Your task to perform on an android device: toggle notification dots Image 0: 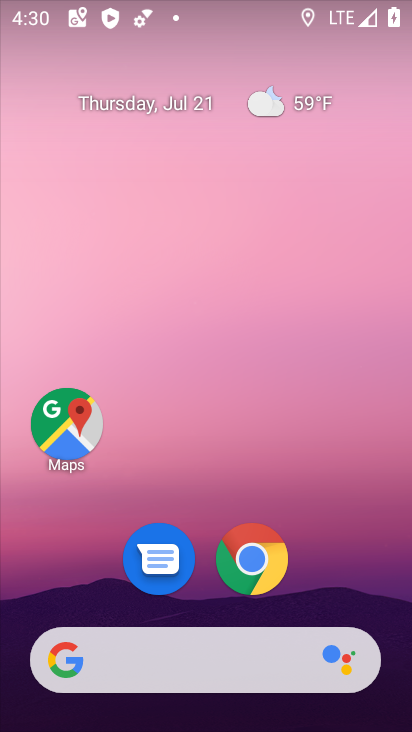
Step 0: drag from (106, 612) to (200, 7)
Your task to perform on an android device: toggle notification dots Image 1: 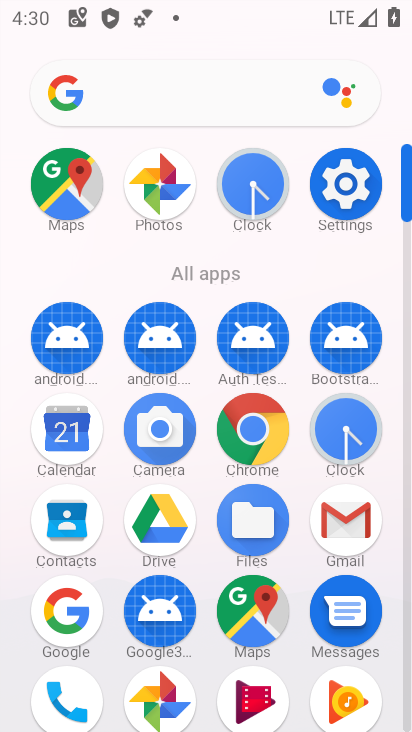
Step 1: click (343, 178)
Your task to perform on an android device: toggle notification dots Image 2: 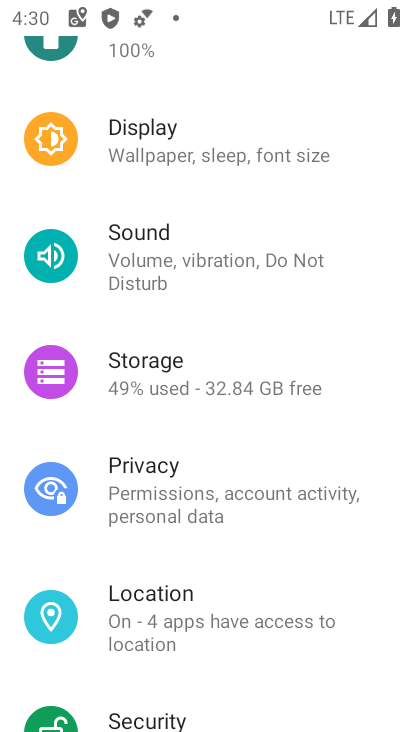
Step 2: drag from (255, 215) to (171, 708)
Your task to perform on an android device: toggle notification dots Image 3: 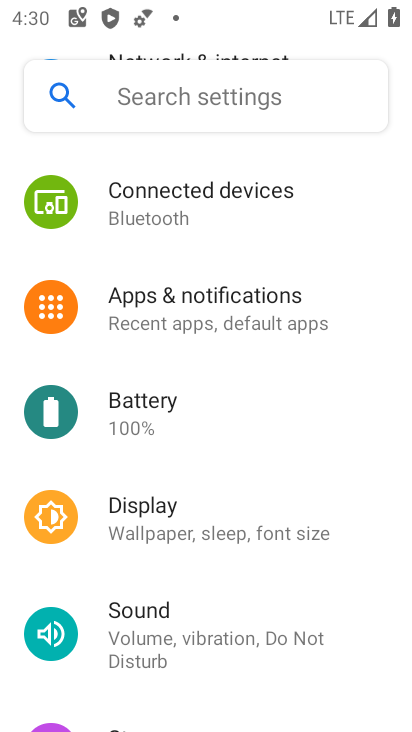
Step 3: click (153, 308)
Your task to perform on an android device: toggle notification dots Image 4: 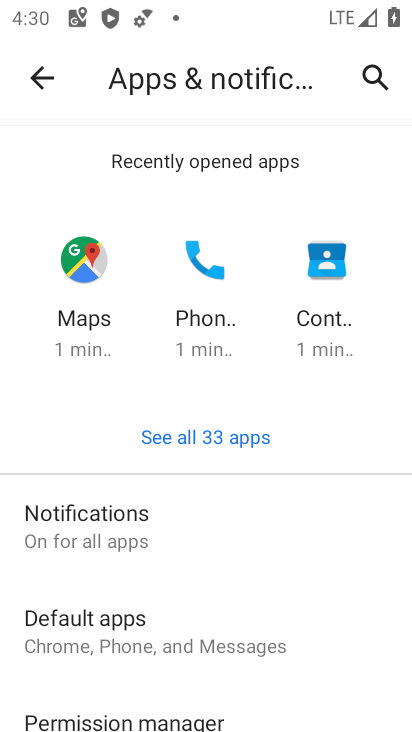
Step 4: click (125, 534)
Your task to perform on an android device: toggle notification dots Image 5: 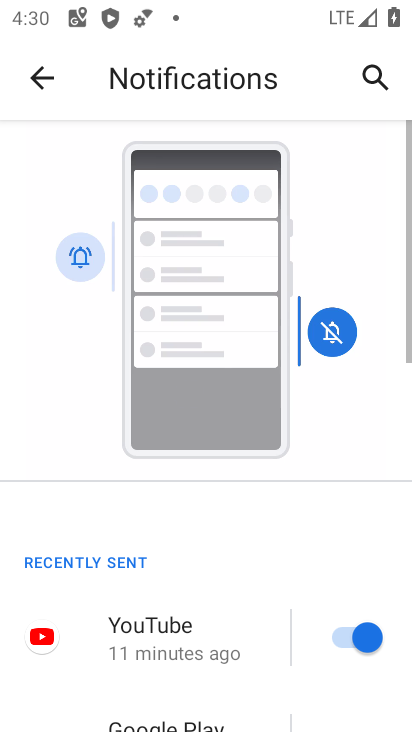
Step 5: drag from (110, 655) to (255, 68)
Your task to perform on an android device: toggle notification dots Image 6: 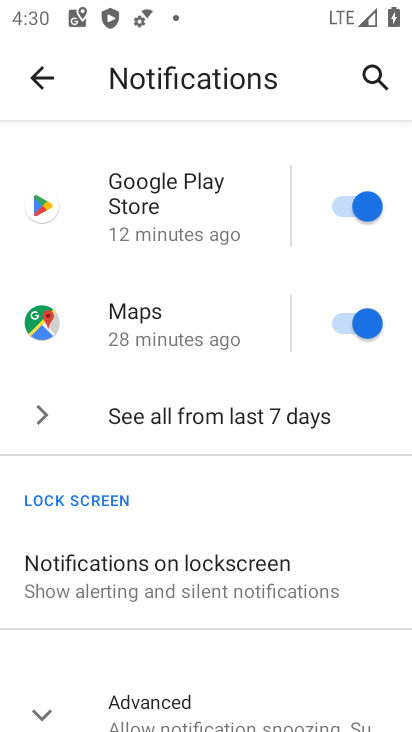
Step 6: drag from (134, 697) to (241, 104)
Your task to perform on an android device: toggle notification dots Image 7: 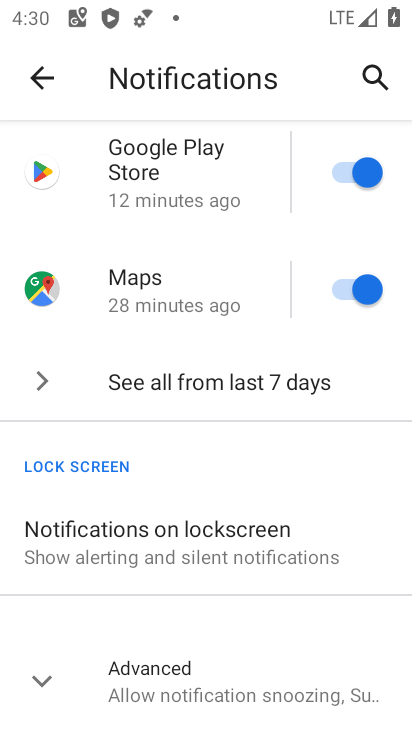
Step 7: click (208, 666)
Your task to perform on an android device: toggle notification dots Image 8: 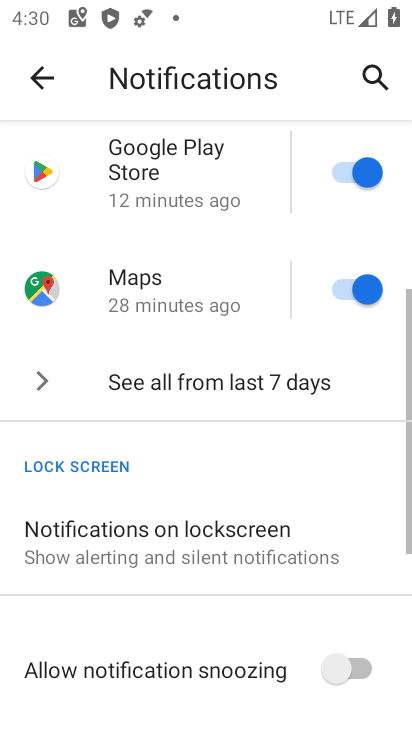
Step 8: drag from (190, 642) to (263, 92)
Your task to perform on an android device: toggle notification dots Image 9: 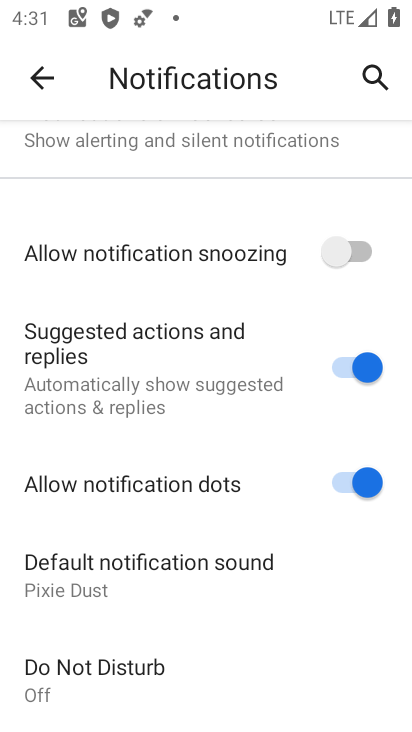
Step 9: click (369, 479)
Your task to perform on an android device: toggle notification dots Image 10: 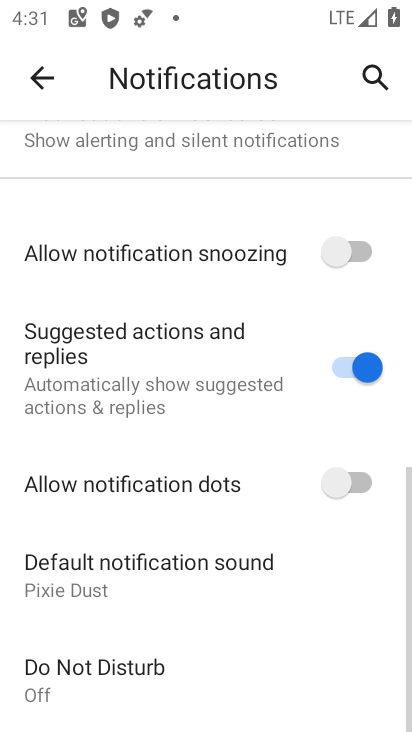
Step 10: task complete